Your task to perform on an android device: turn off notifications settings in the gmail app Image 0: 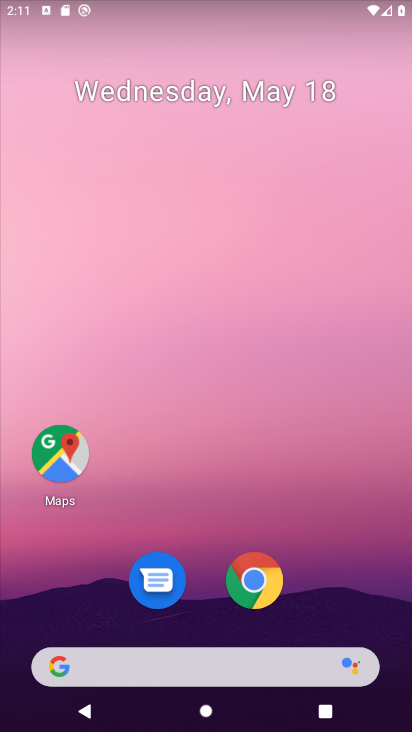
Step 0: drag from (208, 612) to (225, 88)
Your task to perform on an android device: turn off notifications settings in the gmail app Image 1: 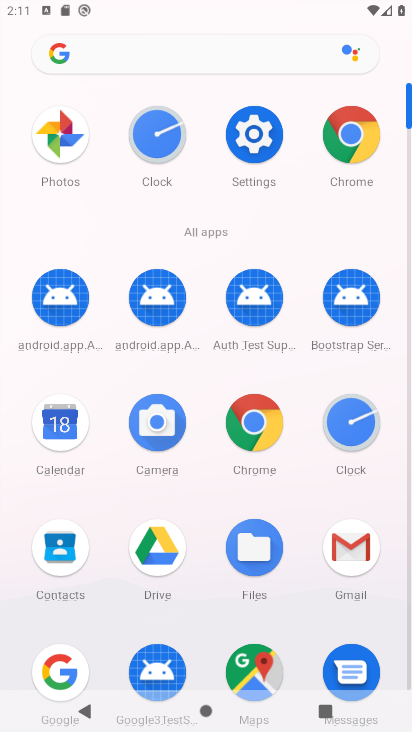
Step 1: drag from (204, 515) to (230, 132)
Your task to perform on an android device: turn off notifications settings in the gmail app Image 2: 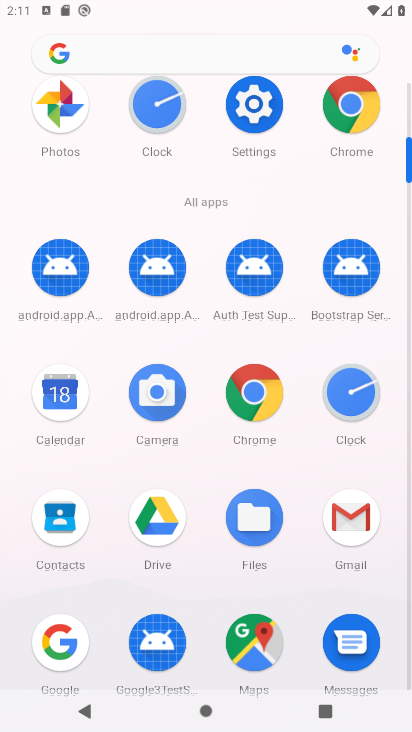
Step 2: click (337, 509)
Your task to perform on an android device: turn off notifications settings in the gmail app Image 3: 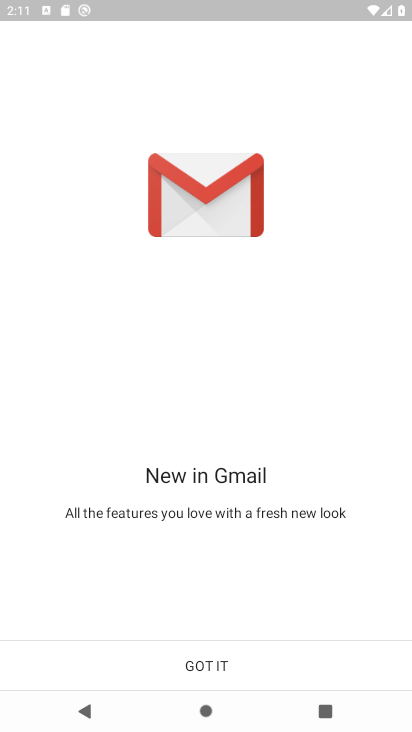
Step 3: click (219, 644)
Your task to perform on an android device: turn off notifications settings in the gmail app Image 4: 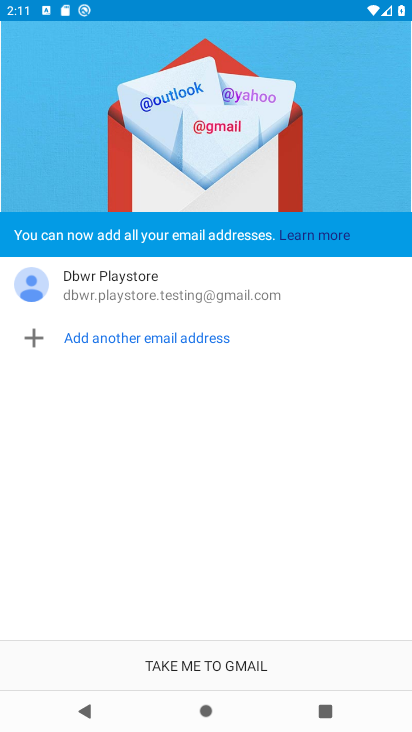
Step 4: click (194, 638)
Your task to perform on an android device: turn off notifications settings in the gmail app Image 5: 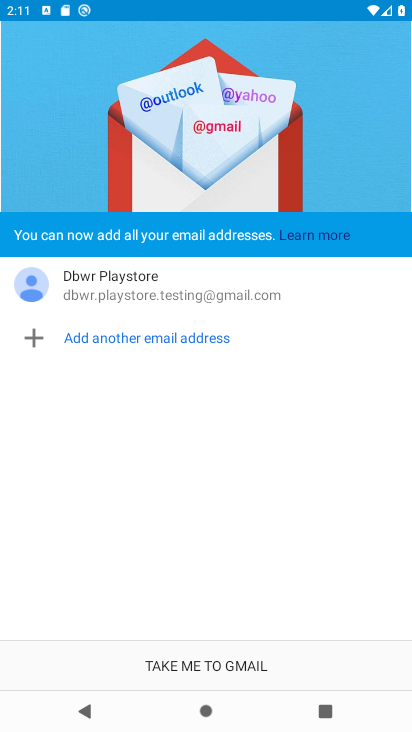
Step 5: click (186, 643)
Your task to perform on an android device: turn off notifications settings in the gmail app Image 6: 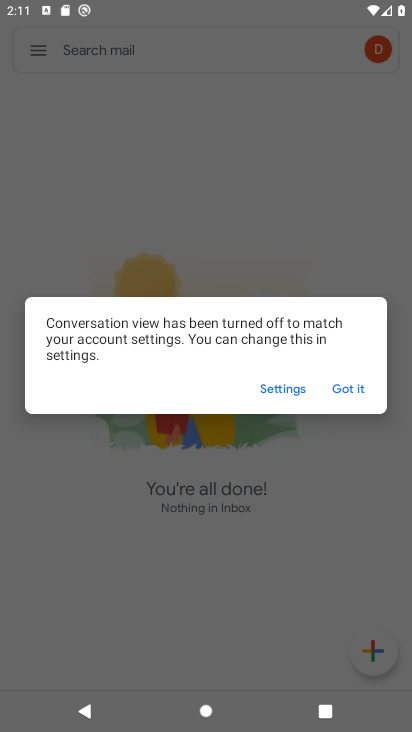
Step 6: click (335, 383)
Your task to perform on an android device: turn off notifications settings in the gmail app Image 7: 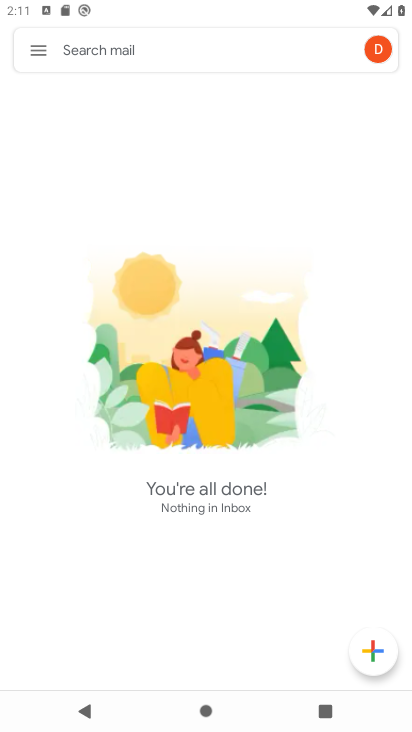
Step 7: click (27, 58)
Your task to perform on an android device: turn off notifications settings in the gmail app Image 8: 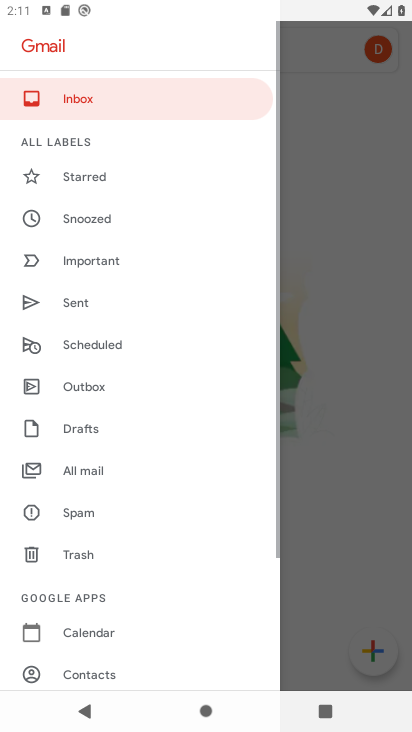
Step 8: drag from (134, 607) to (164, 106)
Your task to perform on an android device: turn off notifications settings in the gmail app Image 9: 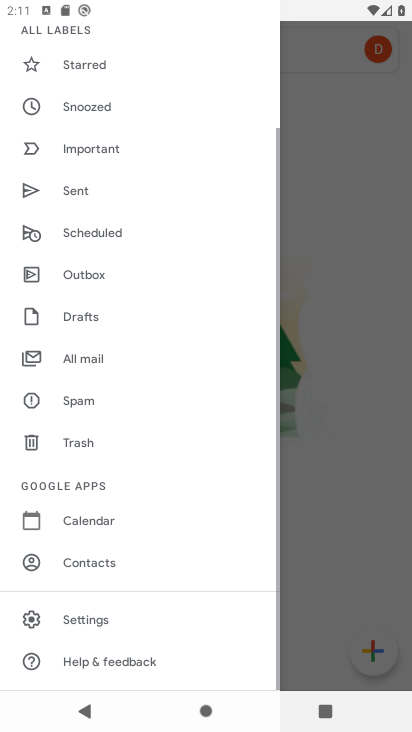
Step 9: drag from (92, 588) to (225, 85)
Your task to perform on an android device: turn off notifications settings in the gmail app Image 10: 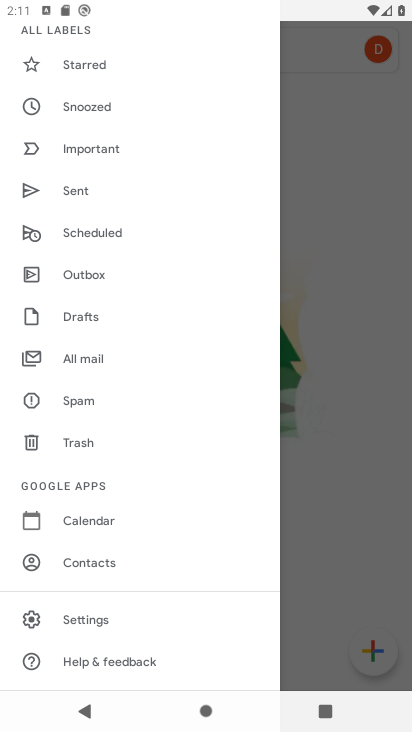
Step 10: click (81, 629)
Your task to perform on an android device: turn off notifications settings in the gmail app Image 11: 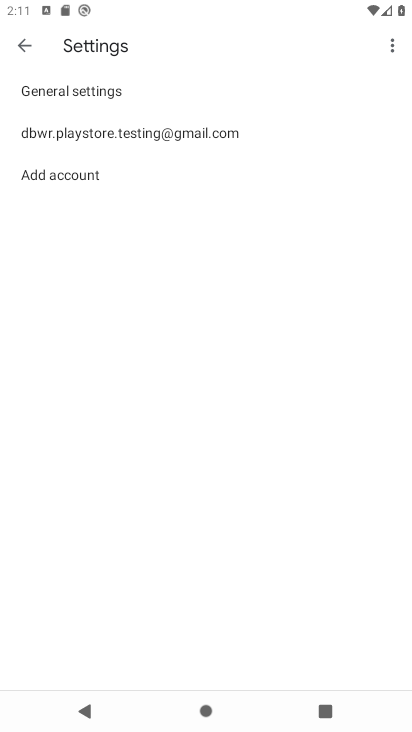
Step 11: drag from (121, 390) to (208, 95)
Your task to perform on an android device: turn off notifications settings in the gmail app Image 12: 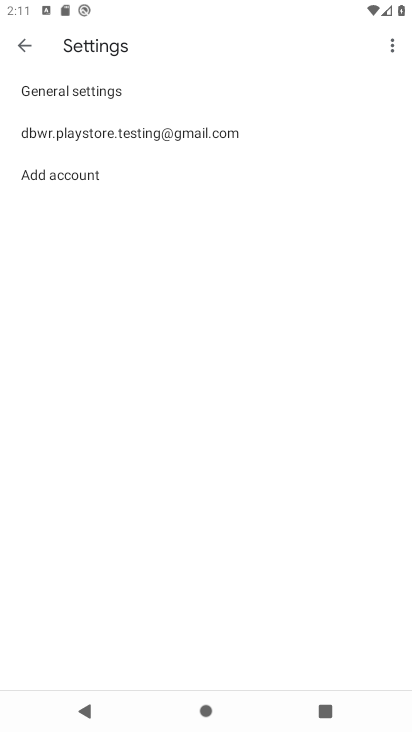
Step 12: click (145, 131)
Your task to perform on an android device: turn off notifications settings in the gmail app Image 13: 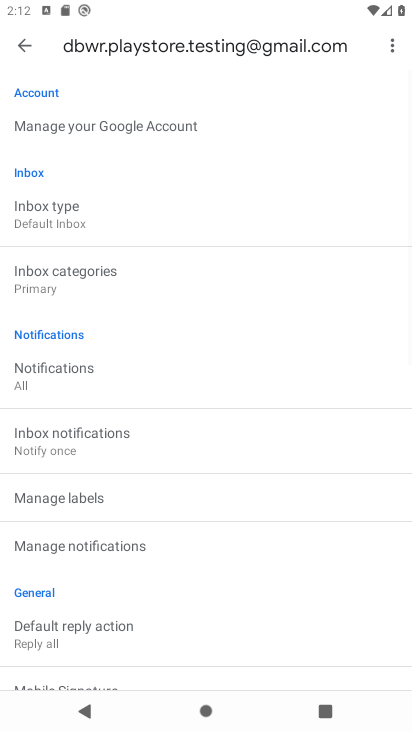
Step 13: drag from (144, 489) to (215, 124)
Your task to perform on an android device: turn off notifications settings in the gmail app Image 14: 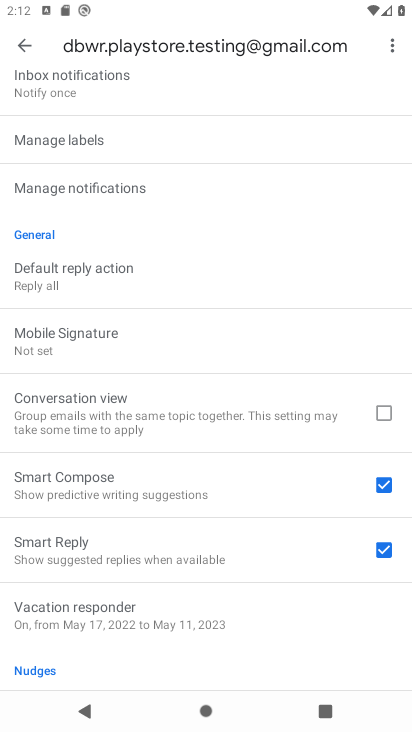
Step 14: click (115, 196)
Your task to perform on an android device: turn off notifications settings in the gmail app Image 15: 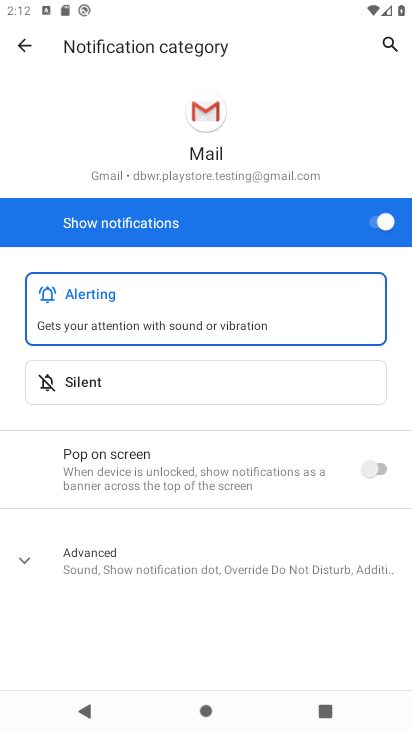
Step 15: click (376, 229)
Your task to perform on an android device: turn off notifications settings in the gmail app Image 16: 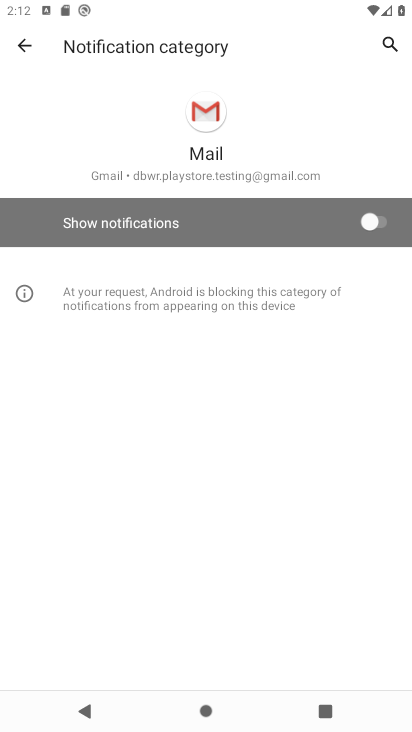
Step 16: task complete